Your task to perform on an android device: change text size in settings app Image 0: 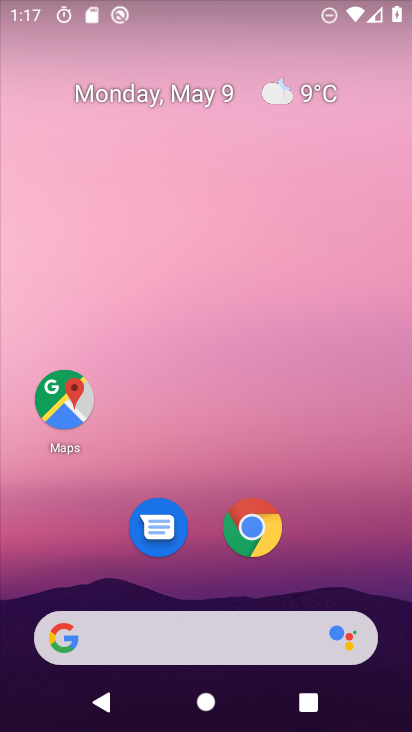
Step 0: drag from (206, 556) to (247, 34)
Your task to perform on an android device: change text size in settings app Image 1: 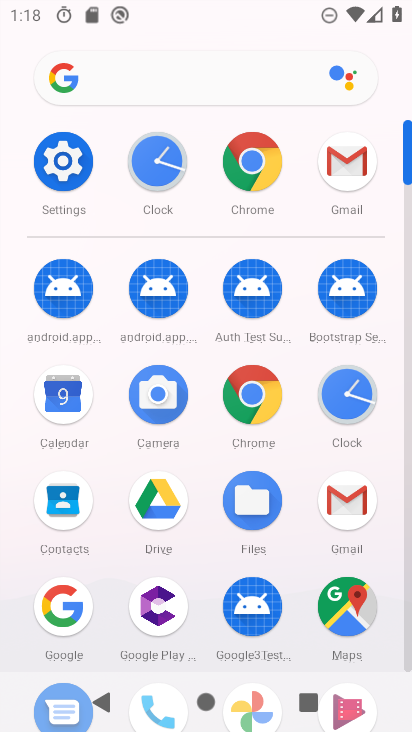
Step 1: click (54, 155)
Your task to perform on an android device: change text size in settings app Image 2: 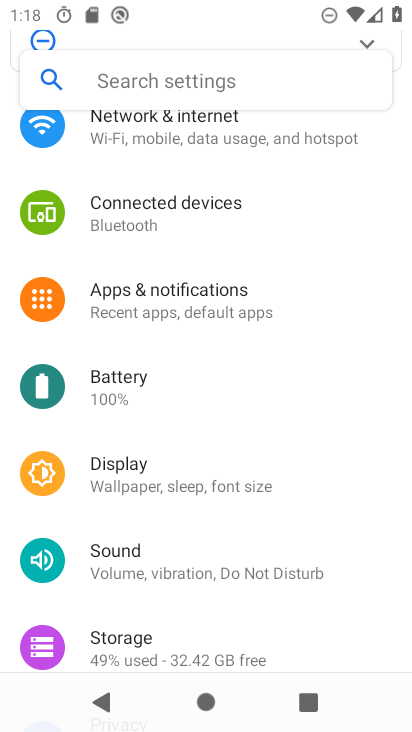
Step 2: drag from (179, 645) to (306, 65)
Your task to perform on an android device: change text size in settings app Image 3: 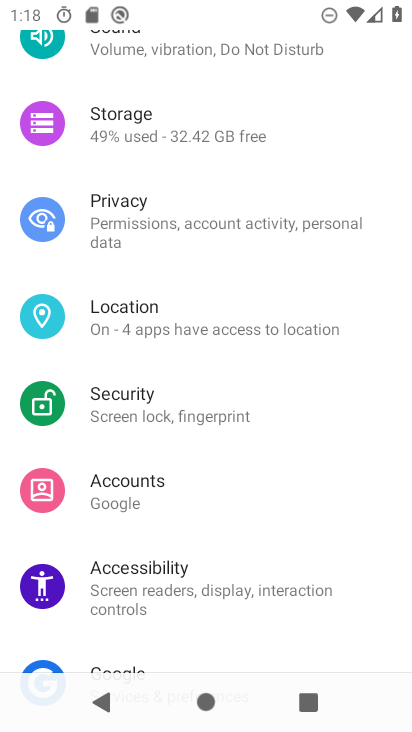
Step 3: drag from (139, 644) to (250, 587)
Your task to perform on an android device: change text size in settings app Image 4: 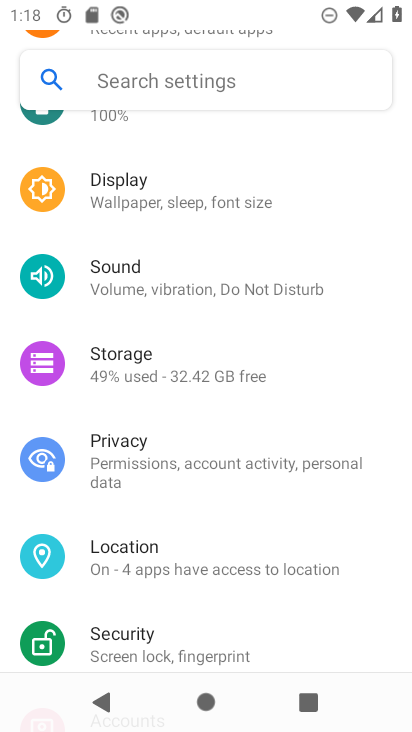
Step 4: click (183, 75)
Your task to perform on an android device: change text size in settings app Image 5: 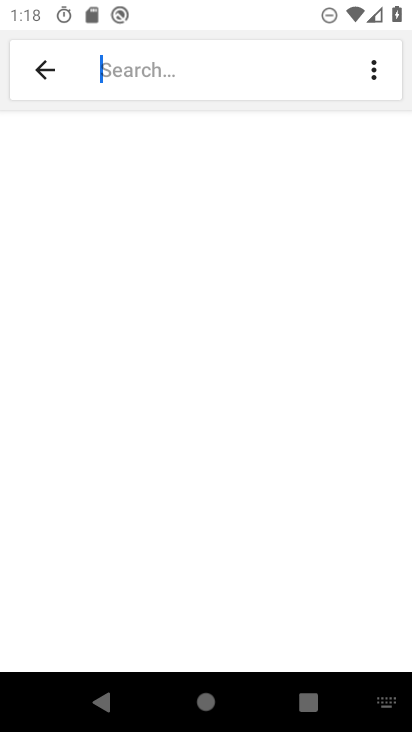
Step 5: type "text size"
Your task to perform on an android device: change text size in settings app Image 6: 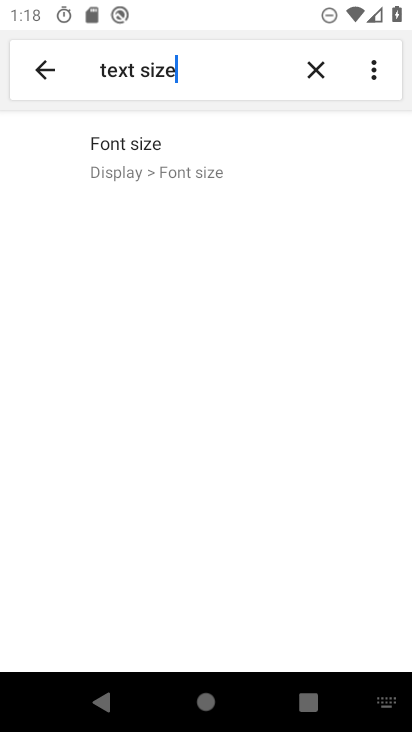
Step 6: click (166, 163)
Your task to perform on an android device: change text size in settings app Image 7: 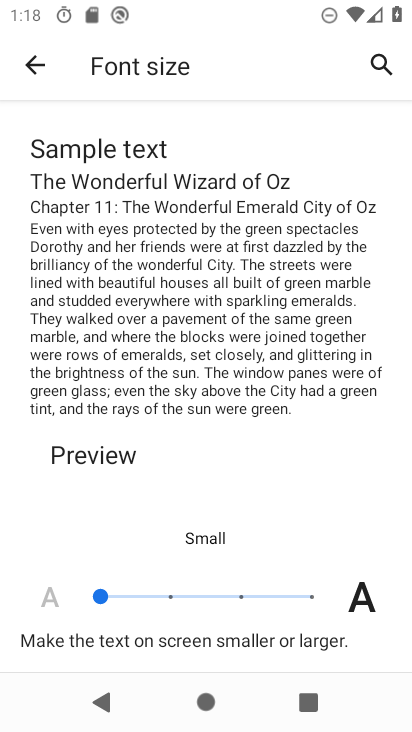
Step 7: task complete